Your task to perform on an android device: change notifications settings Image 0: 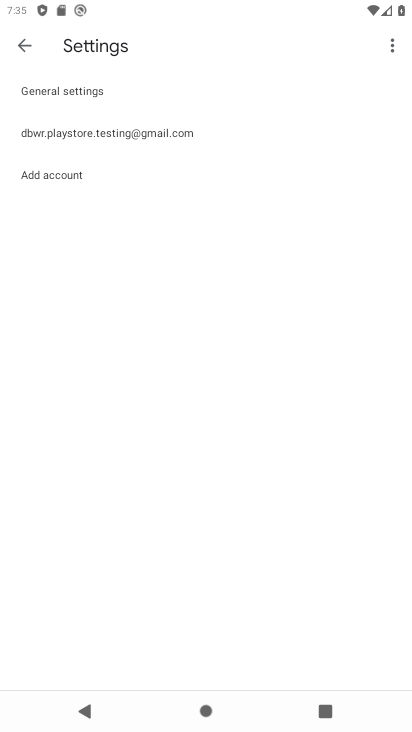
Step 0: press home button
Your task to perform on an android device: change notifications settings Image 1: 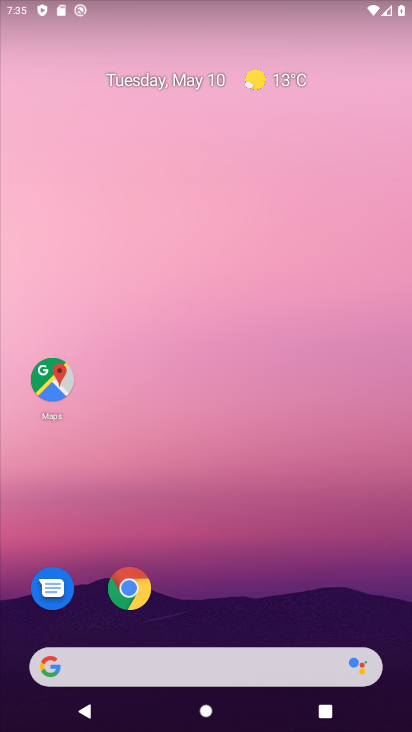
Step 1: drag from (205, 615) to (328, 16)
Your task to perform on an android device: change notifications settings Image 2: 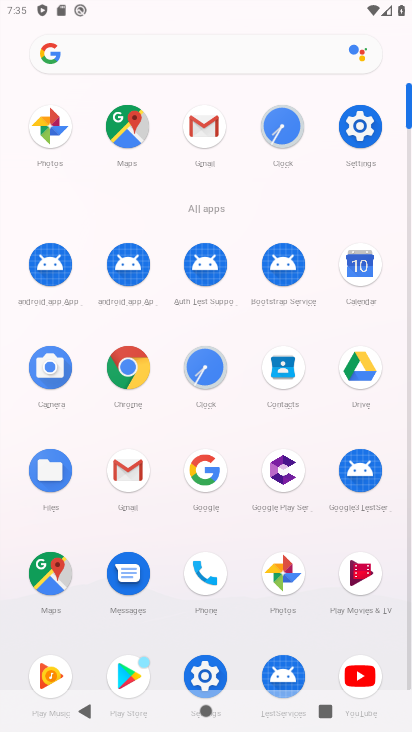
Step 2: click (355, 126)
Your task to perform on an android device: change notifications settings Image 3: 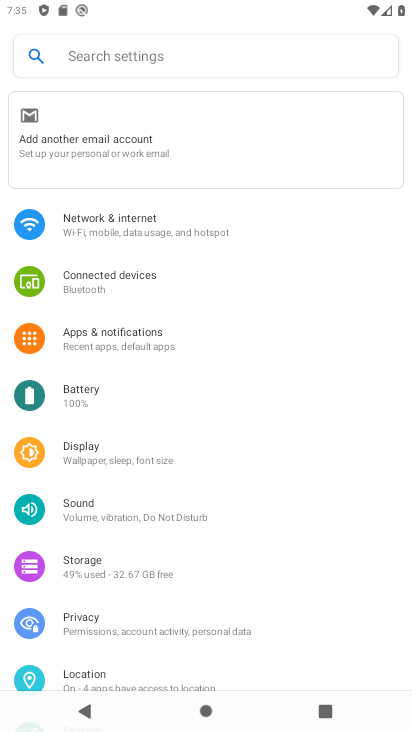
Step 3: click (132, 342)
Your task to perform on an android device: change notifications settings Image 4: 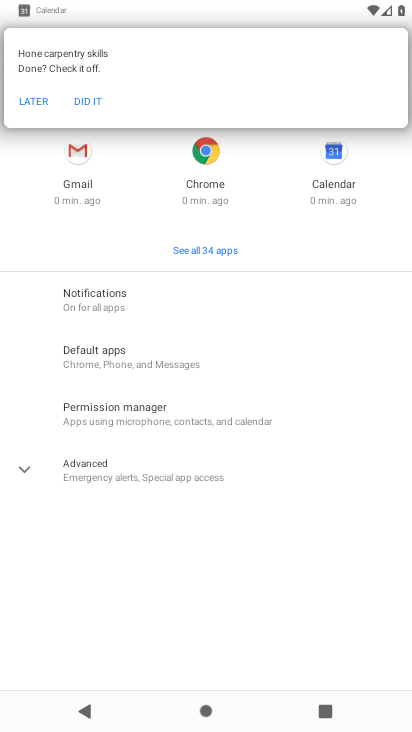
Step 4: click (145, 315)
Your task to perform on an android device: change notifications settings Image 5: 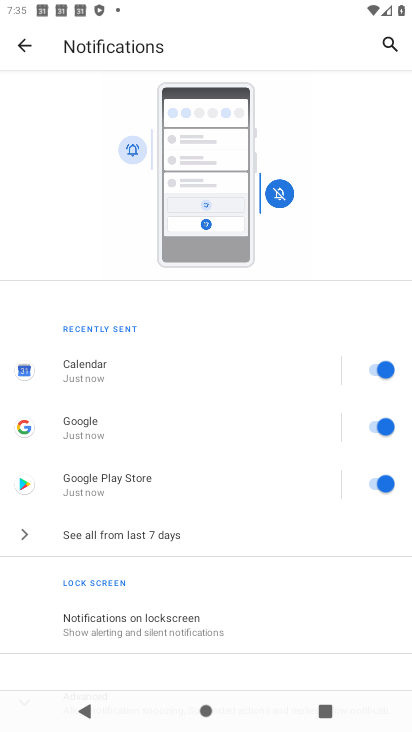
Step 5: drag from (174, 635) to (199, 346)
Your task to perform on an android device: change notifications settings Image 6: 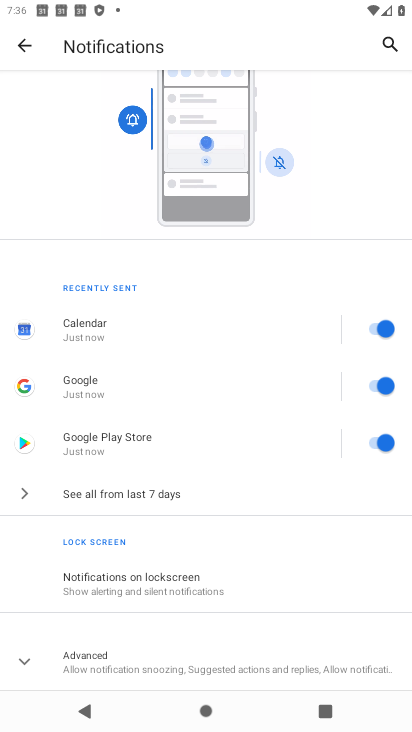
Step 6: click (103, 659)
Your task to perform on an android device: change notifications settings Image 7: 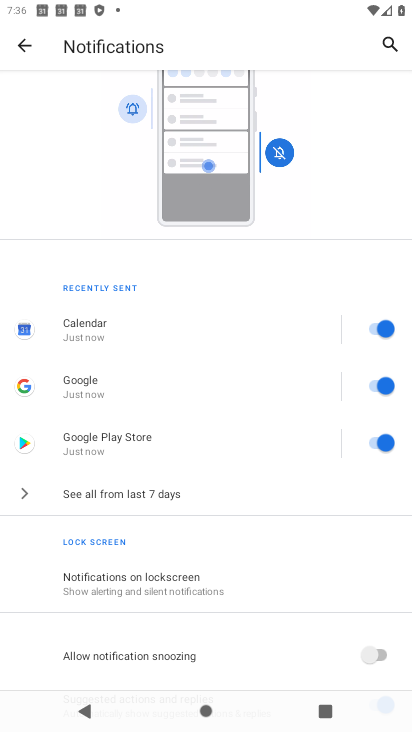
Step 7: drag from (103, 659) to (196, 161)
Your task to perform on an android device: change notifications settings Image 8: 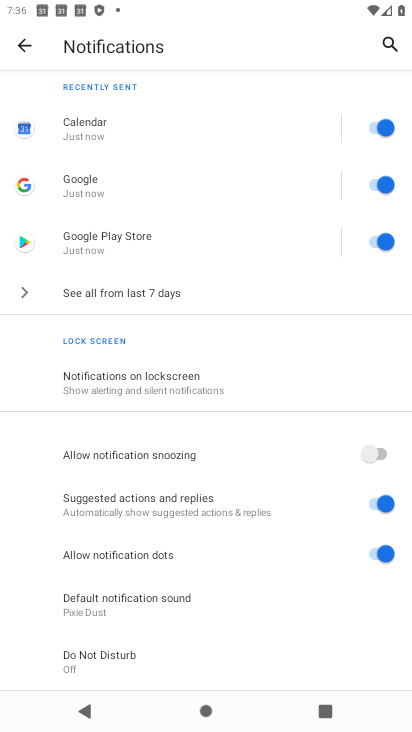
Step 8: click (373, 454)
Your task to perform on an android device: change notifications settings Image 9: 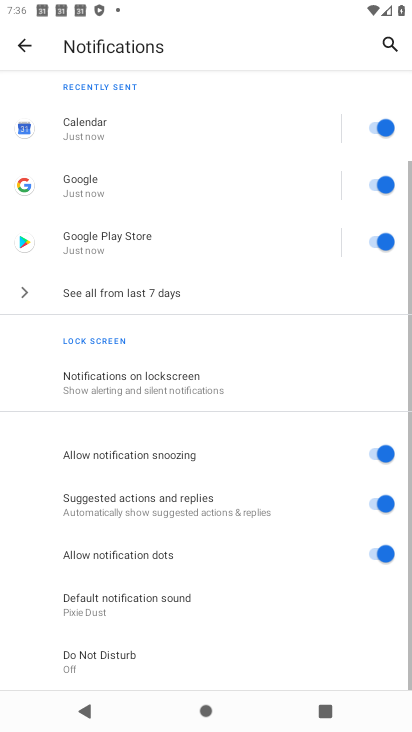
Step 9: click (387, 502)
Your task to perform on an android device: change notifications settings Image 10: 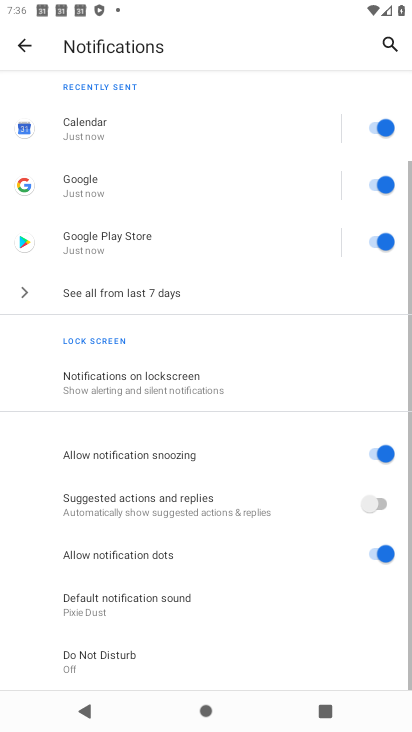
Step 10: click (379, 558)
Your task to perform on an android device: change notifications settings Image 11: 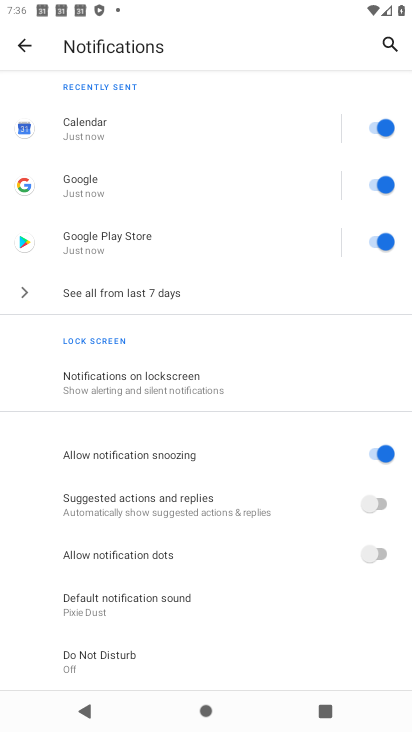
Step 11: task complete